Your task to perform on an android device: Is it going to rain this weekend? Image 0: 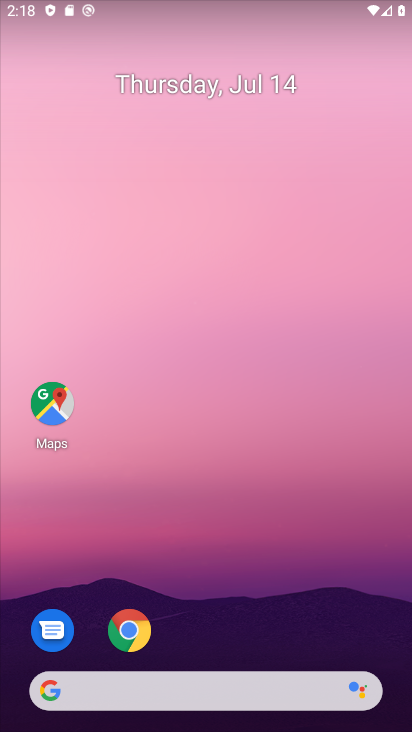
Step 0: click (222, 0)
Your task to perform on an android device: Is it going to rain this weekend? Image 1: 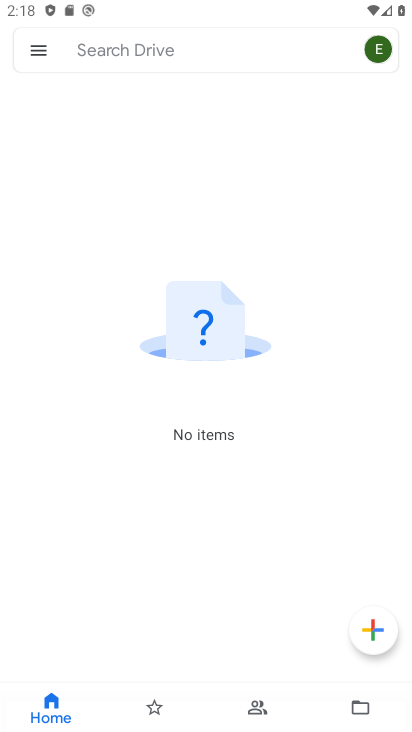
Step 1: press home button
Your task to perform on an android device: Is it going to rain this weekend? Image 2: 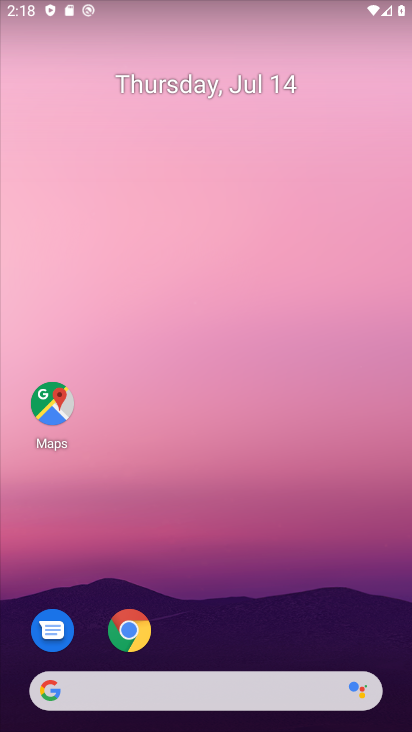
Step 2: click (149, 683)
Your task to perform on an android device: Is it going to rain this weekend? Image 3: 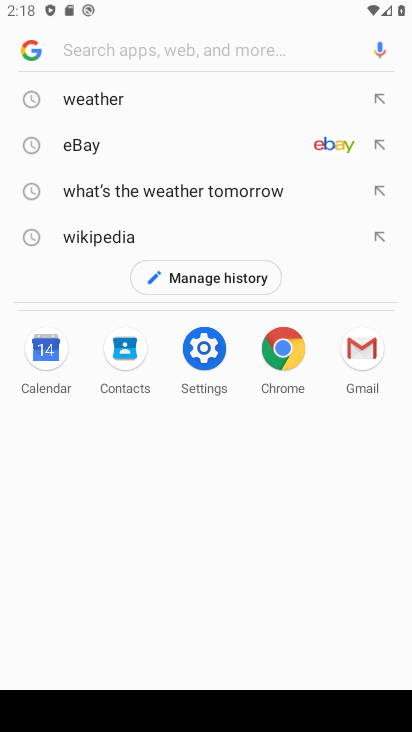
Step 3: click (131, 93)
Your task to perform on an android device: Is it going to rain this weekend? Image 4: 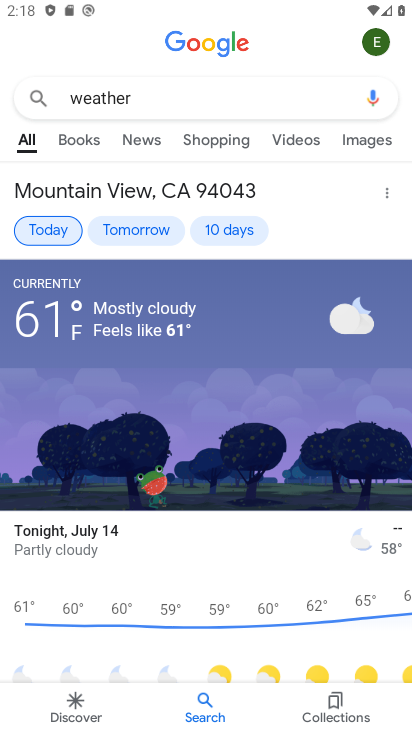
Step 4: click (226, 233)
Your task to perform on an android device: Is it going to rain this weekend? Image 5: 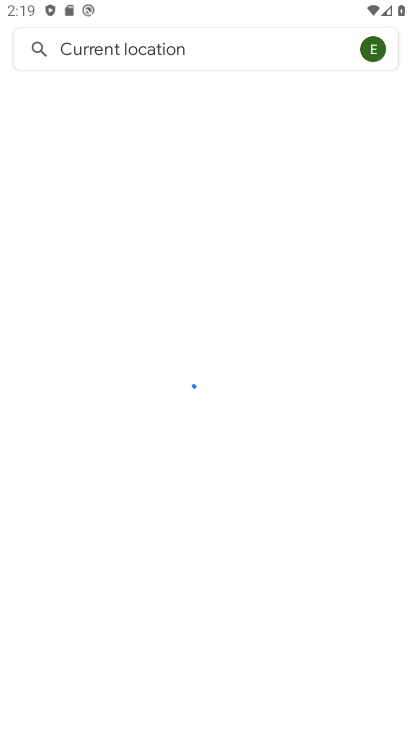
Step 5: task complete